Your task to perform on an android device: Open my contact list Image 0: 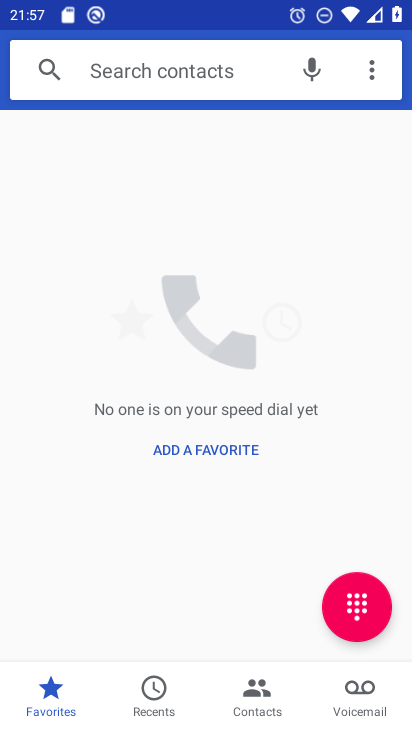
Step 0: press home button
Your task to perform on an android device: Open my contact list Image 1: 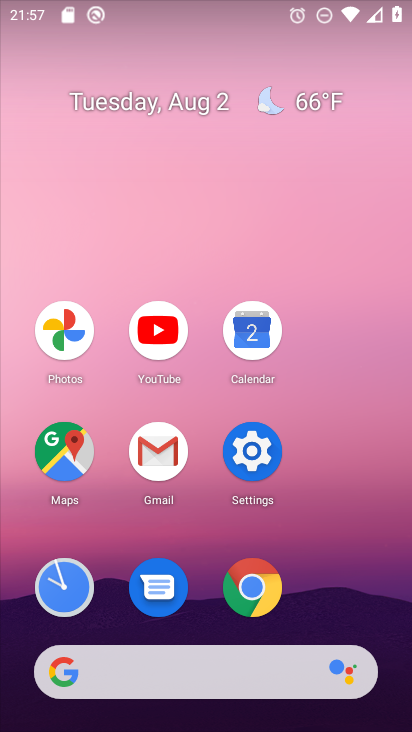
Step 1: drag from (337, 580) to (236, 97)
Your task to perform on an android device: Open my contact list Image 2: 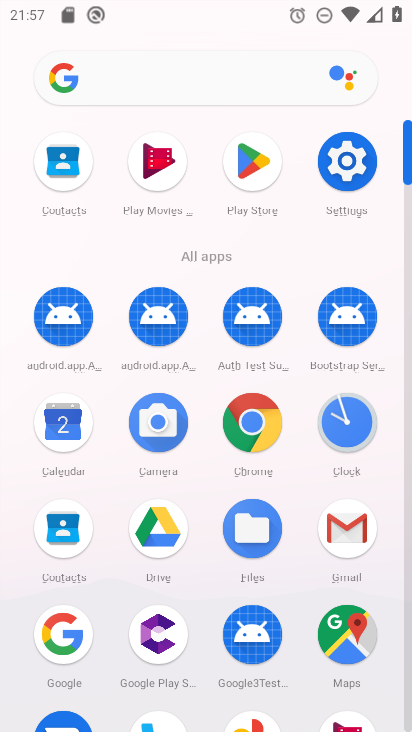
Step 2: click (57, 529)
Your task to perform on an android device: Open my contact list Image 3: 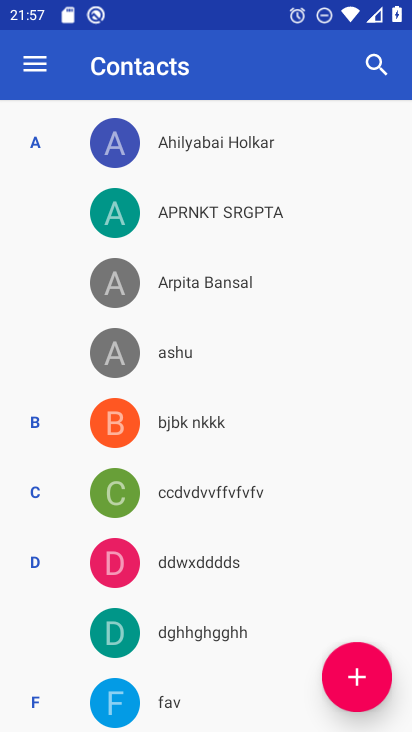
Step 3: task complete